Your task to perform on an android device: What's the weather going to be tomorrow? Image 0: 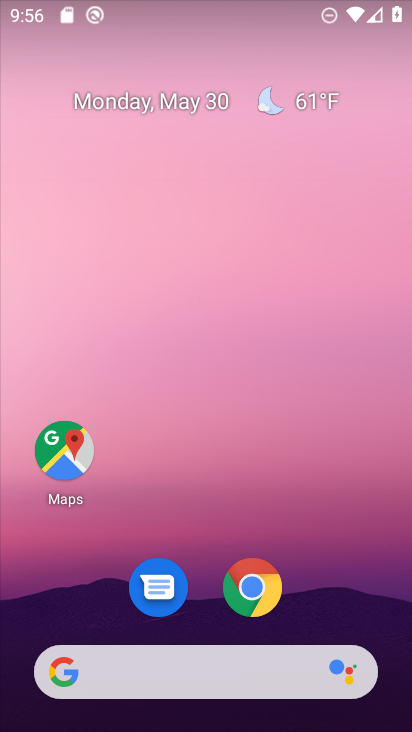
Step 0: click (242, 657)
Your task to perform on an android device: What's the weather going to be tomorrow? Image 1: 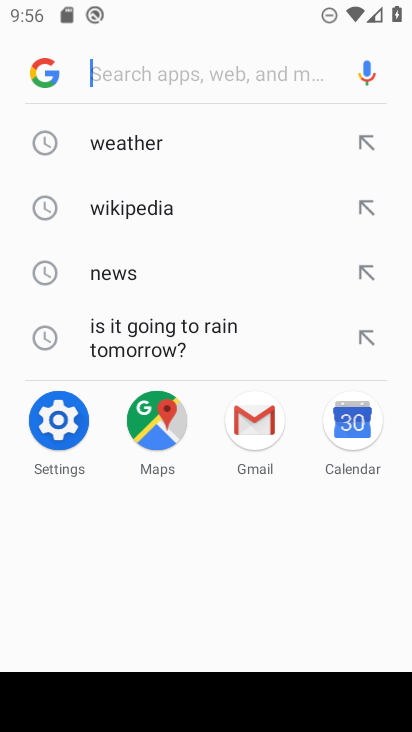
Step 1: click (146, 156)
Your task to perform on an android device: What's the weather going to be tomorrow? Image 2: 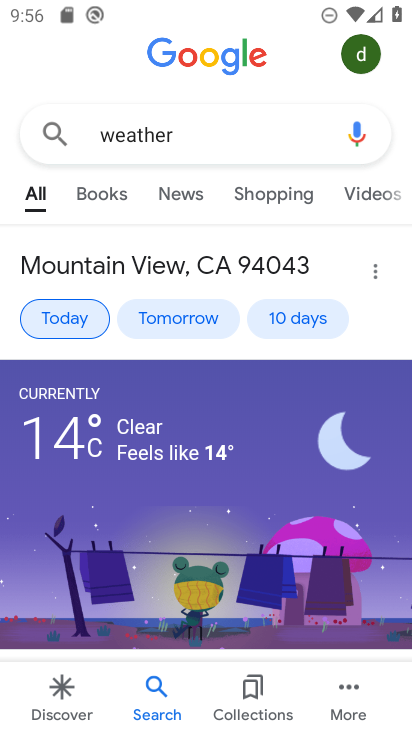
Step 2: click (149, 317)
Your task to perform on an android device: What's the weather going to be tomorrow? Image 3: 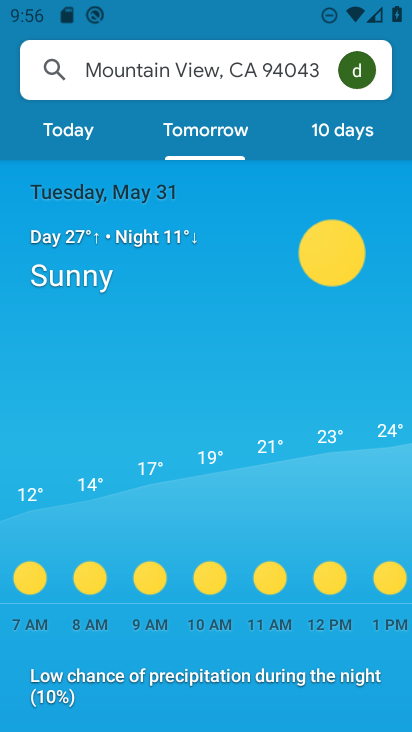
Step 3: task complete